Your task to perform on an android device: open app "Messages" (install if not already installed) and go to login screen Image 0: 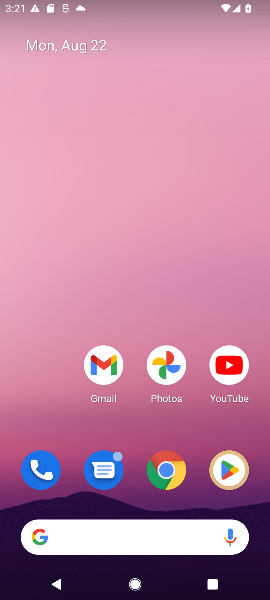
Step 0: drag from (127, 472) to (127, 142)
Your task to perform on an android device: open app "Messages" (install if not already installed) and go to login screen Image 1: 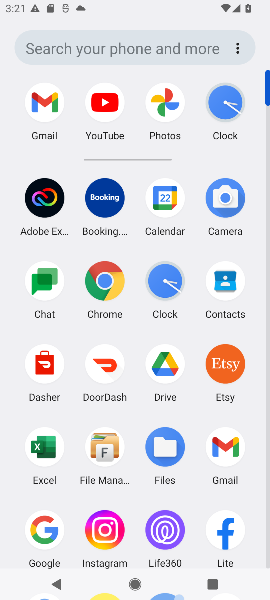
Step 1: drag from (122, 525) to (183, 135)
Your task to perform on an android device: open app "Messages" (install if not already installed) and go to login screen Image 2: 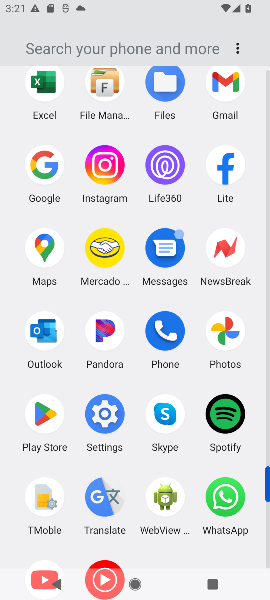
Step 2: click (54, 405)
Your task to perform on an android device: open app "Messages" (install if not already installed) and go to login screen Image 3: 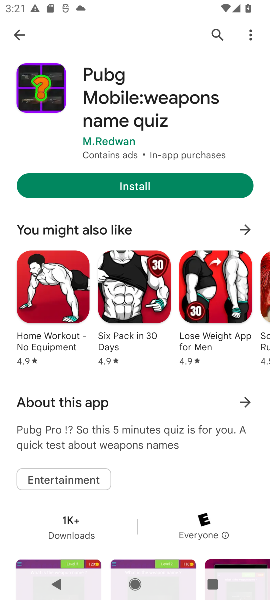
Step 3: click (14, 38)
Your task to perform on an android device: open app "Messages" (install if not already installed) and go to login screen Image 4: 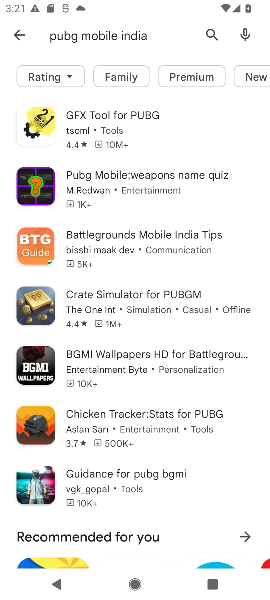
Step 4: click (27, 31)
Your task to perform on an android device: open app "Messages" (install if not already installed) and go to login screen Image 5: 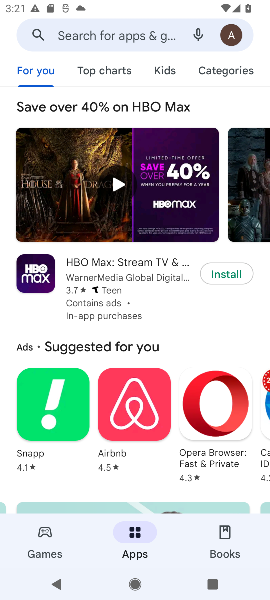
Step 5: click (123, 30)
Your task to perform on an android device: open app "Messages" (install if not already installed) and go to login screen Image 6: 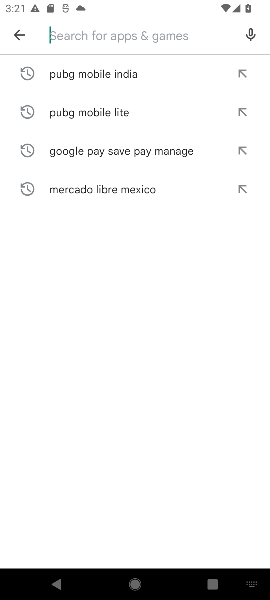
Step 6: type "Messages "
Your task to perform on an android device: open app "Messages" (install if not already installed) and go to login screen Image 7: 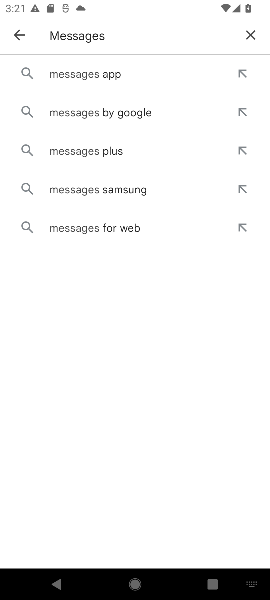
Step 7: click (122, 76)
Your task to perform on an android device: open app "Messages" (install if not already installed) and go to login screen Image 8: 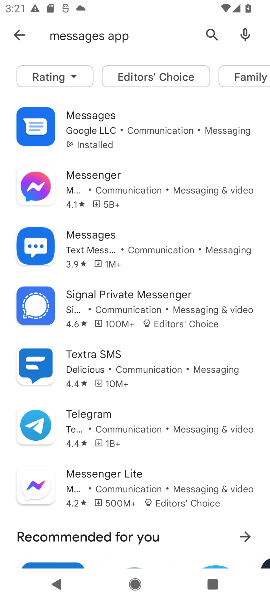
Step 8: click (124, 130)
Your task to perform on an android device: open app "Messages" (install if not already installed) and go to login screen Image 9: 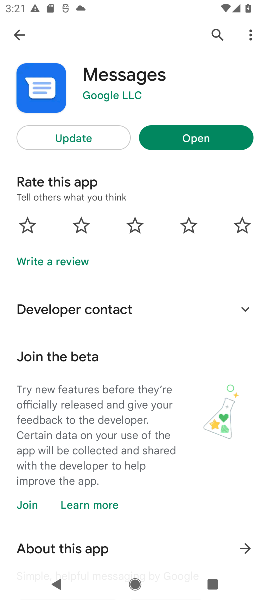
Step 9: click (206, 137)
Your task to perform on an android device: open app "Messages" (install if not already installed) and go to login screen Image 10: 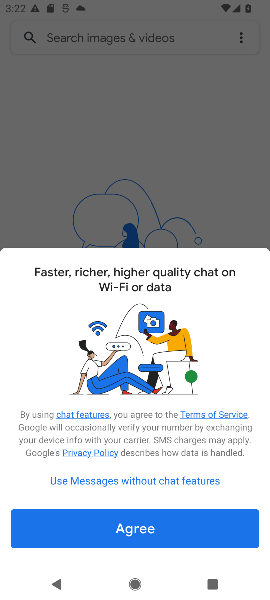
Step 10: click (163, 517)
Your task to perform on an android device: open app "Messages" (install if not already installed) and go to login screen Image 11: 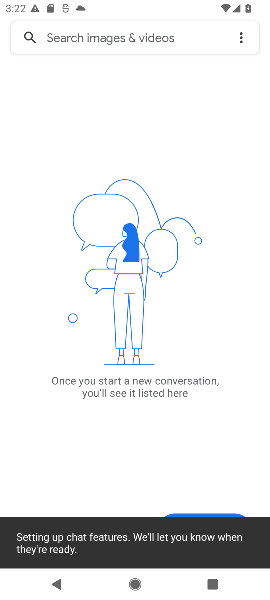
Step 11: task complete